Your task to perform on an android device: Search for bose soundsport free on newegg, select the first entry, add it to the cart, then select checkout. Image 0: 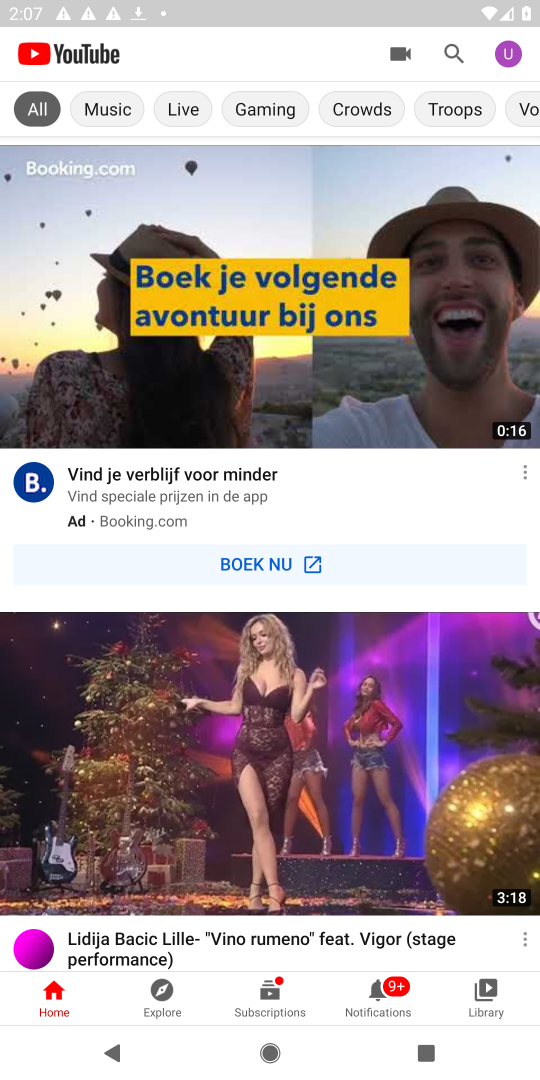
Step 0: press home button
Your task to perform on an android device: Search for bose soundsport free on newegg, select the first entry, add it to the cart, then select checkout. Image 1: 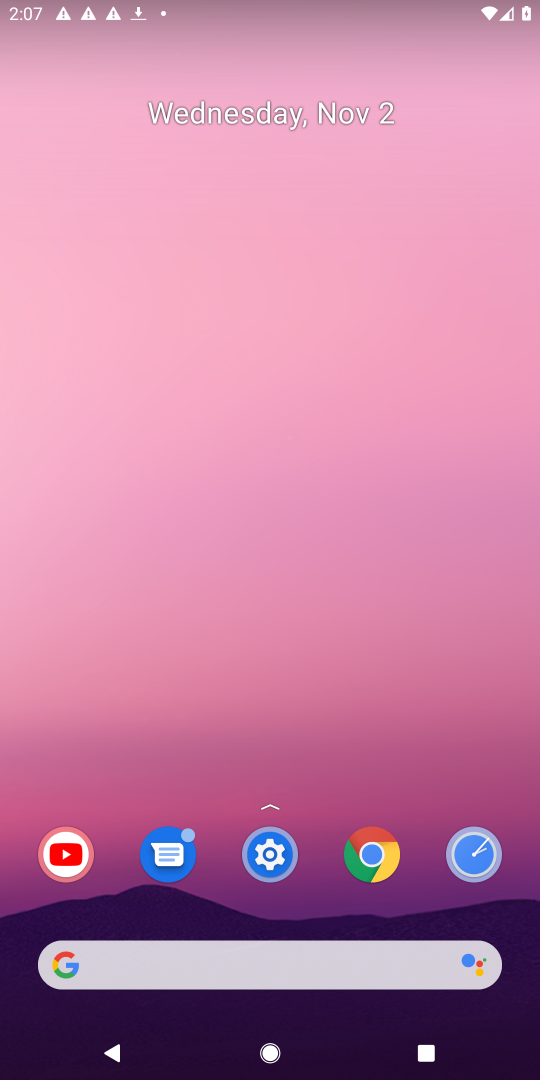
Step 1: click (315, 967)
Your task to perform on an android device: Search for bose soundsport free on newegg, select the first entry, add it to the cart, then select checkout. Image 2: 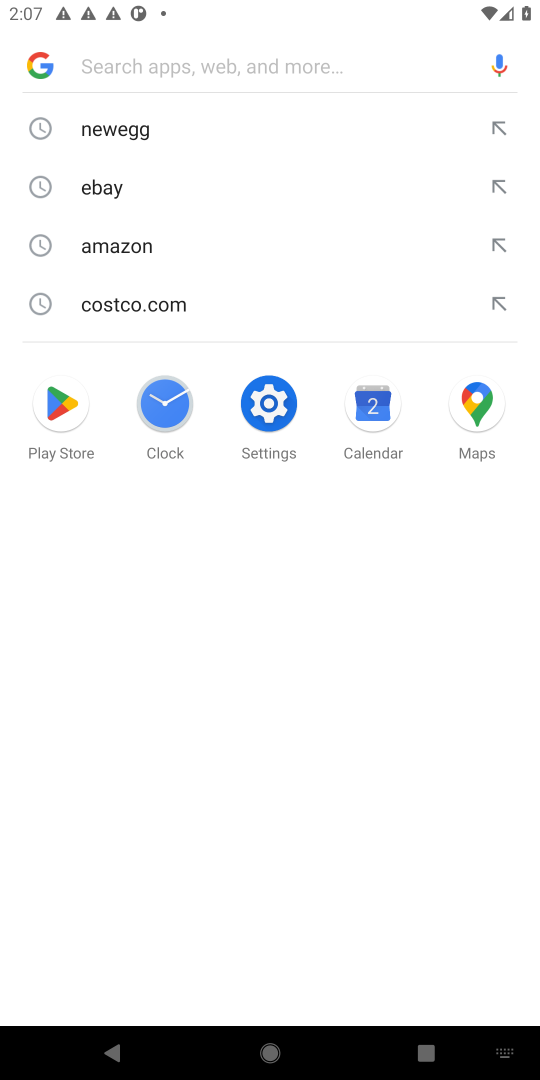
Step 2: type "newegg"
Your task to perform on an android device: Search for bose soundsport free on newegg, select the first entry, add it to the cart, then select checkout. Image 3: 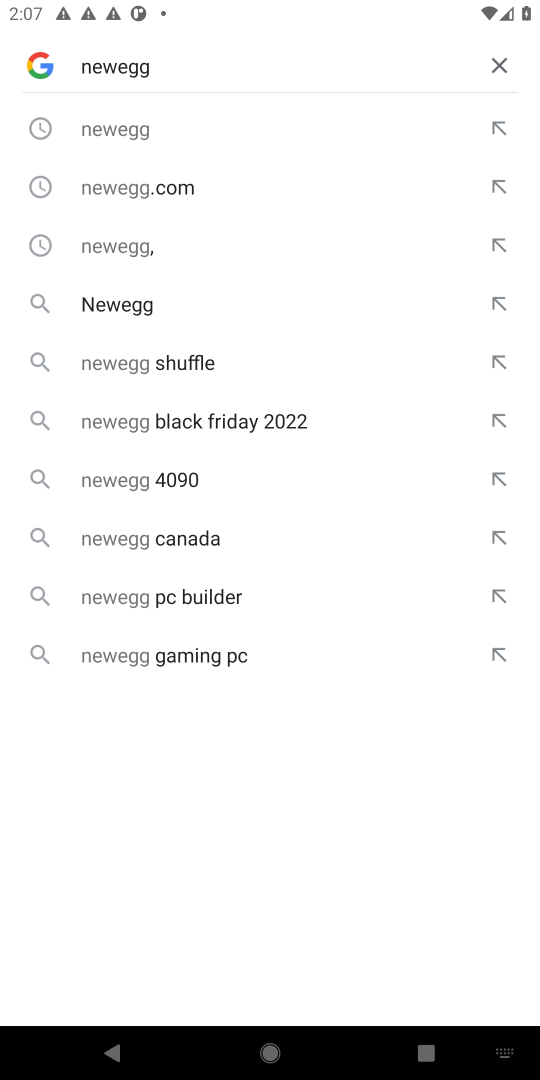
Step 3: press enter
Your task to perform on an android device: Search for bose soundsport free on newegg, select the first entry, add it to the cart, then select checkout. Image 4: 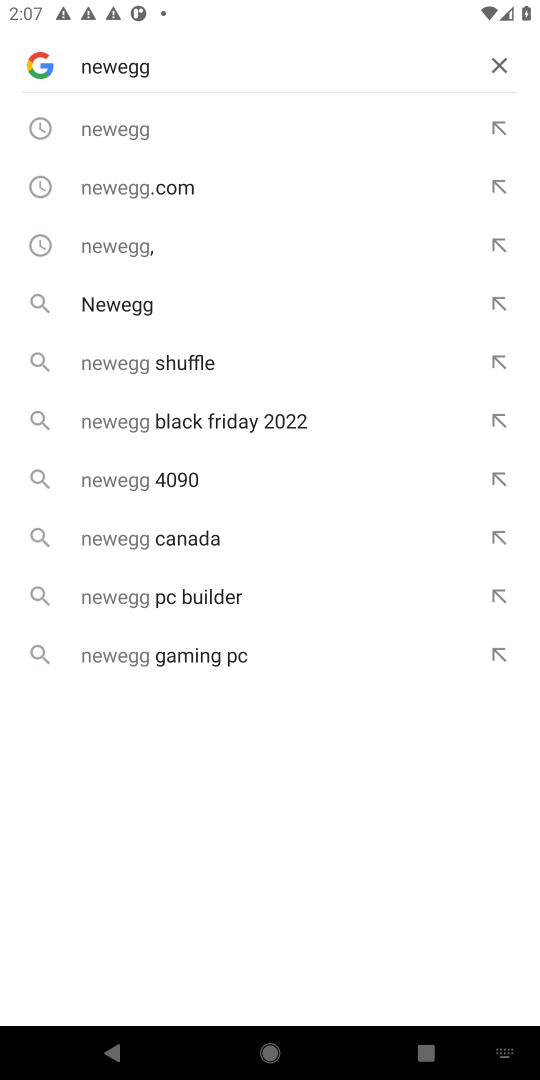
Step 4: type ""
Your task to perform on an android device: Search for bose soundsport free on newegg, select the first entry, add it to the cart, then select checkout. Image 5: 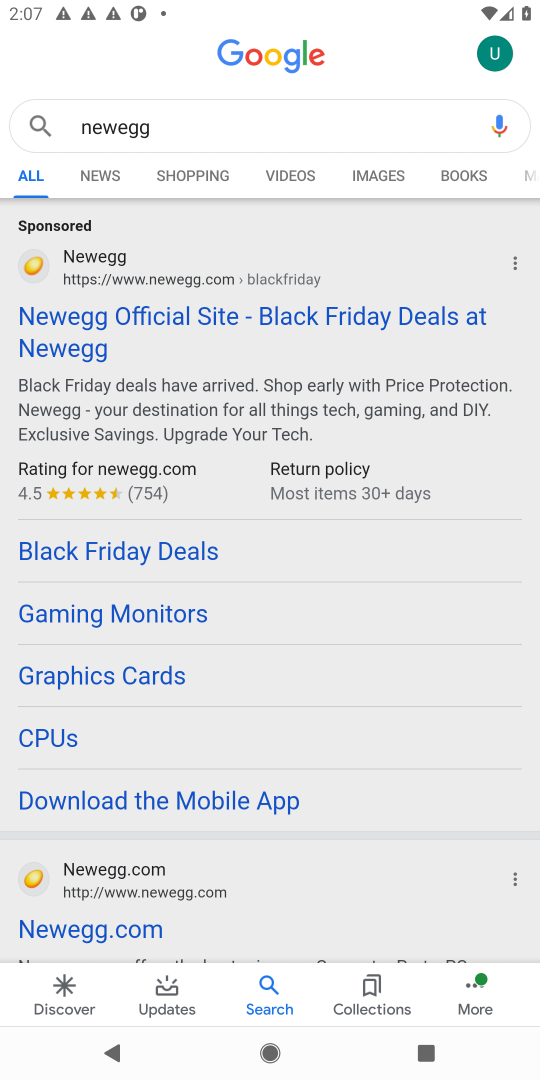
Step 5: click (117, 335)
Your task to perform on an android device: Search for bose soundsport free on newegg, select the first entry, add it to the cart, then select checkout. Image 6: 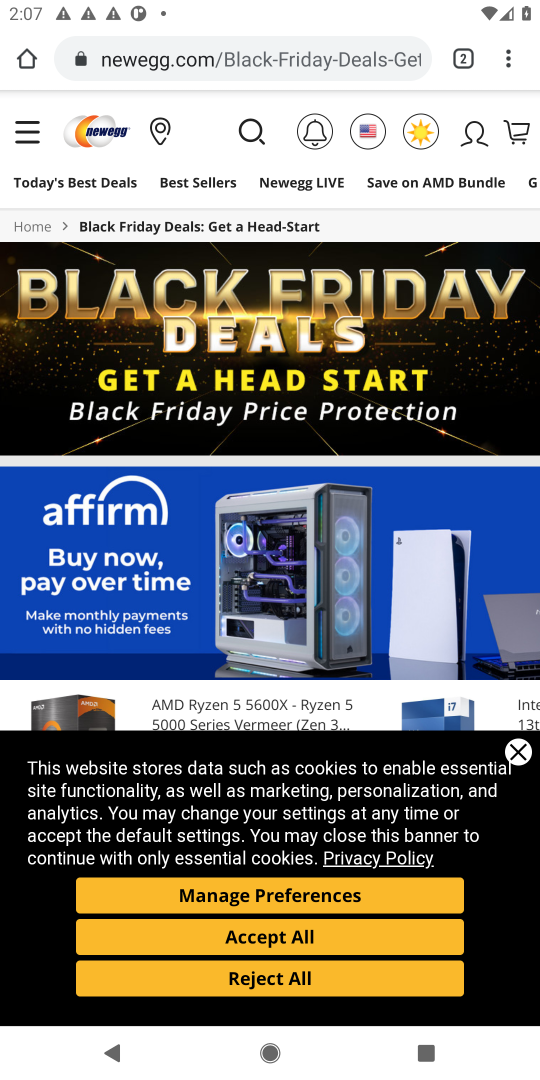
Step 6: click (266, 985)
Your task to perform on an android device: Search for bose soundsport free on newegg, select the first entry, add it to the cart, then select checkout. Image 7: 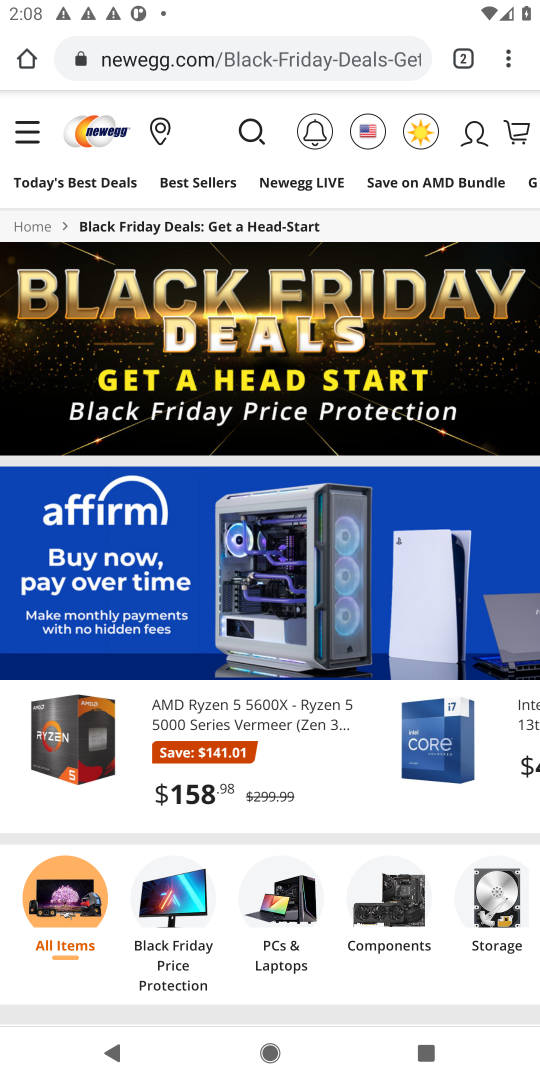
Step 7: drag from (193, 598) to (167, 349)
Your task to perform on an android device: Search for bose soundsport free on newegg, select the first entry, add it to the cart, then select checkout. Image 8: 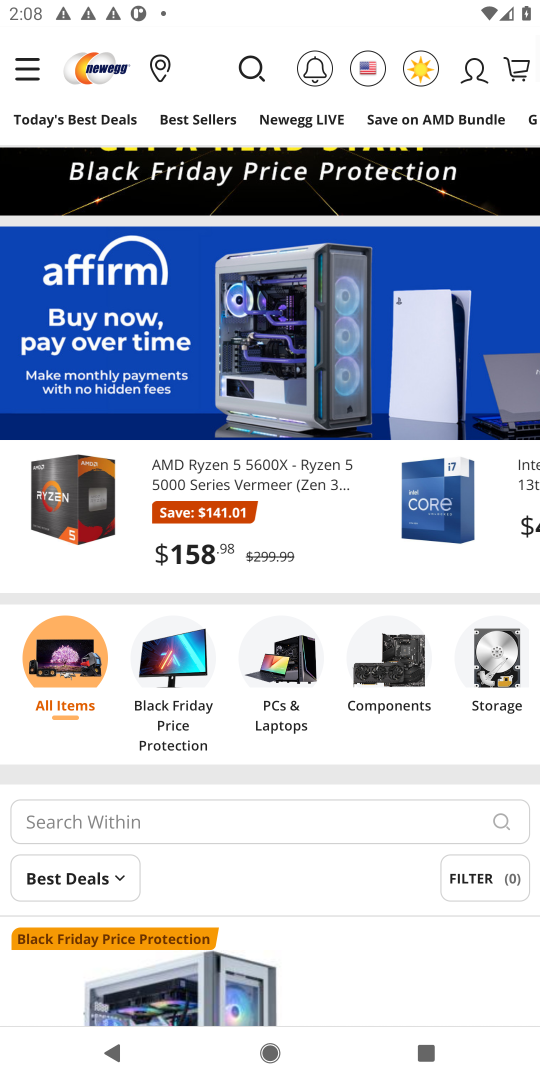
Step 8: click (173, 277)
Your task to perform on an android device: Search for bose soundsport free on newegg, select the first entry, add it to the cart, then select checkout. Image 9: 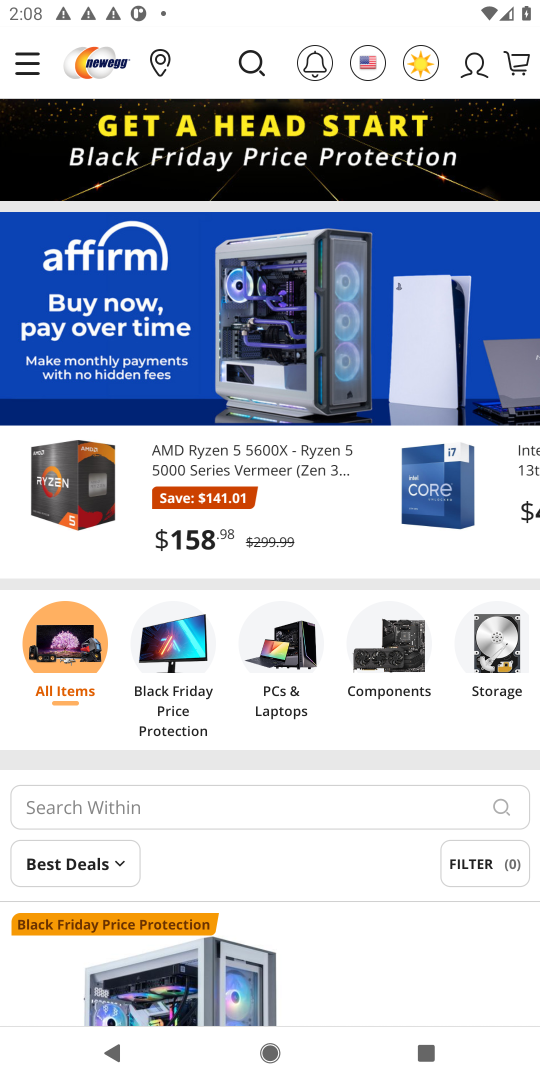
Step 9: click (315, 801)
Your task to perform on an android device: Search for bose soundsport free on newegg, select the first entry, add it to the cart, then select checkout. Image 10: 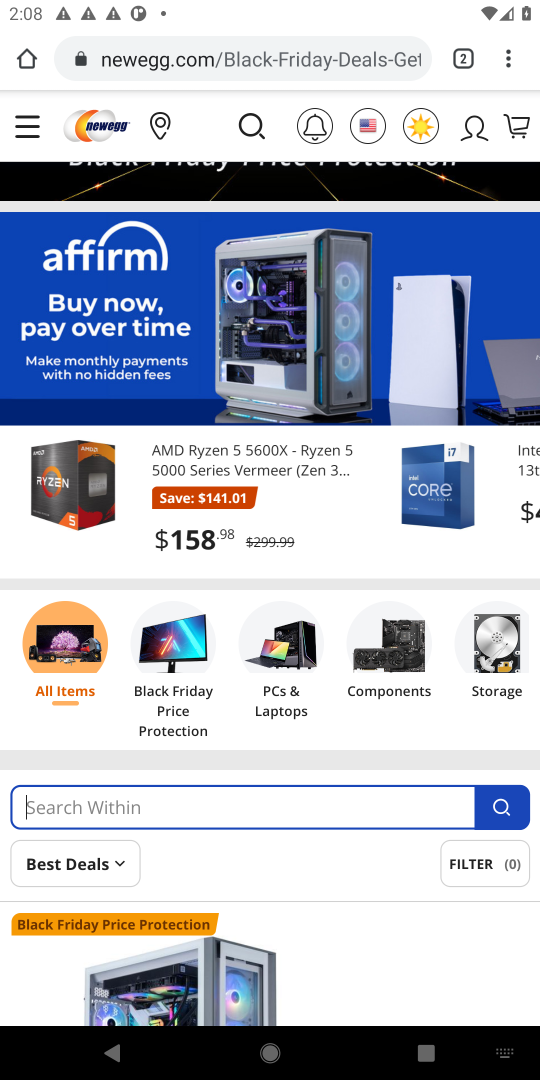
Step 10: click (315, 801)
Your task to perform on an android device: Search for bose soundsport free on newegg, select the first entry, add it to the cart, then select checkout. Image 11: 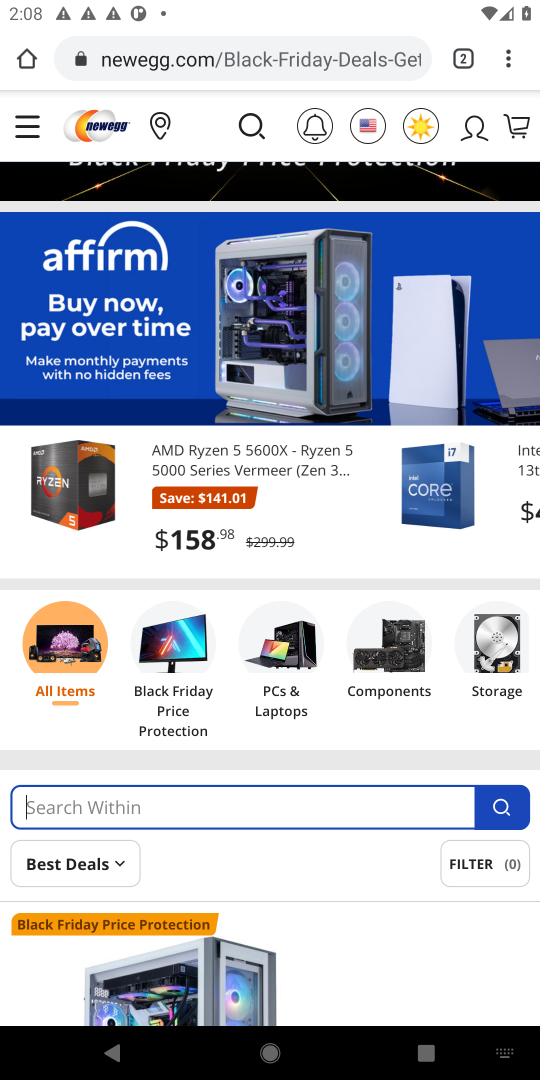
Step 11: click (240, 806)
Your task to perform on an android device: Search for bose soundsport free on newegg, select the first entry, add it to the cart, then select checkout. Image 12: 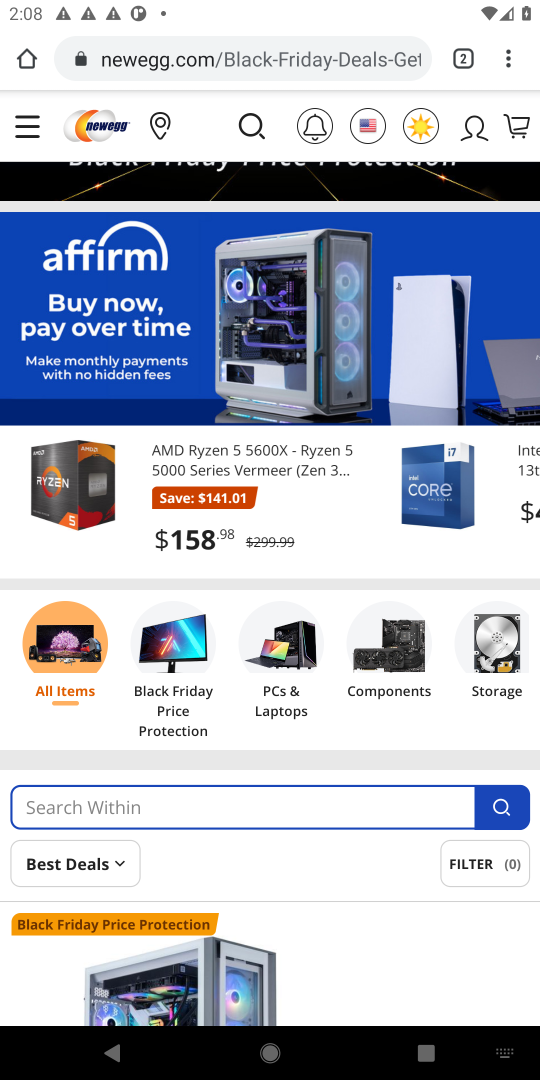
Step 12: type "bose soundsport"
Your task to perform on an android device: Search for bose soundsport free on newegg, select the first entry, add it to the cart, then select checkout. Image 13: 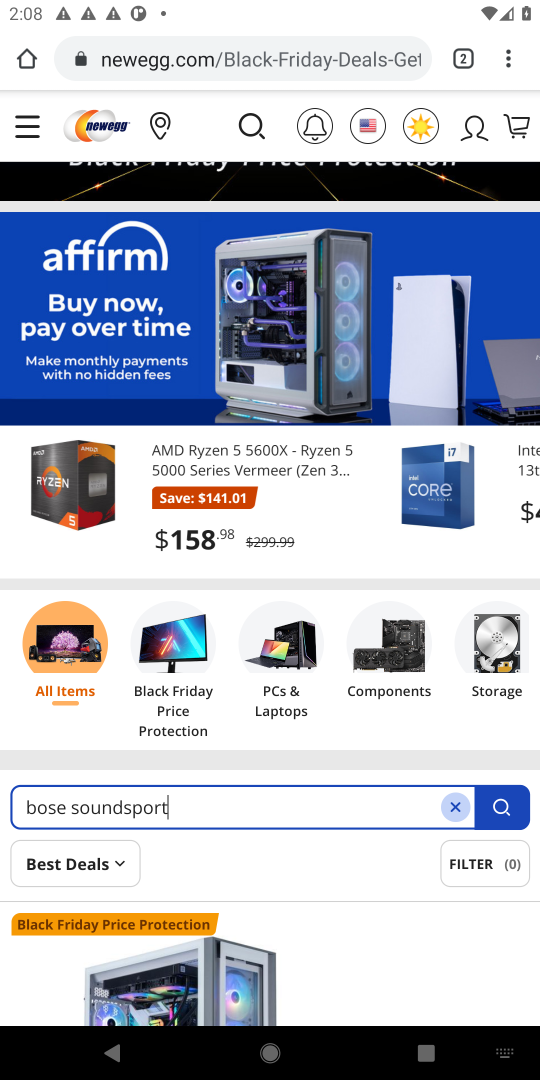
Step 13: type ""
Your task to perform on an android device: Search for bose soundsport free on newegg, select the first entry, add it to the cart, then select checkout. Image 14: 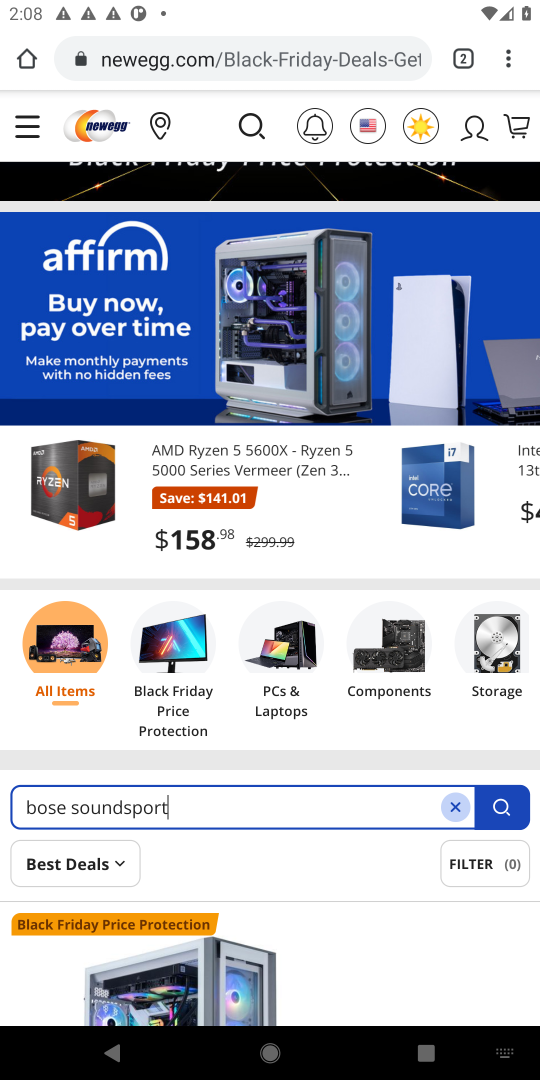
Step 14: press enter
Your task to perform on an android device: Search for bose soundsport free on newegg, select the first entry, add it to the cart, then select checkout. Image 15: 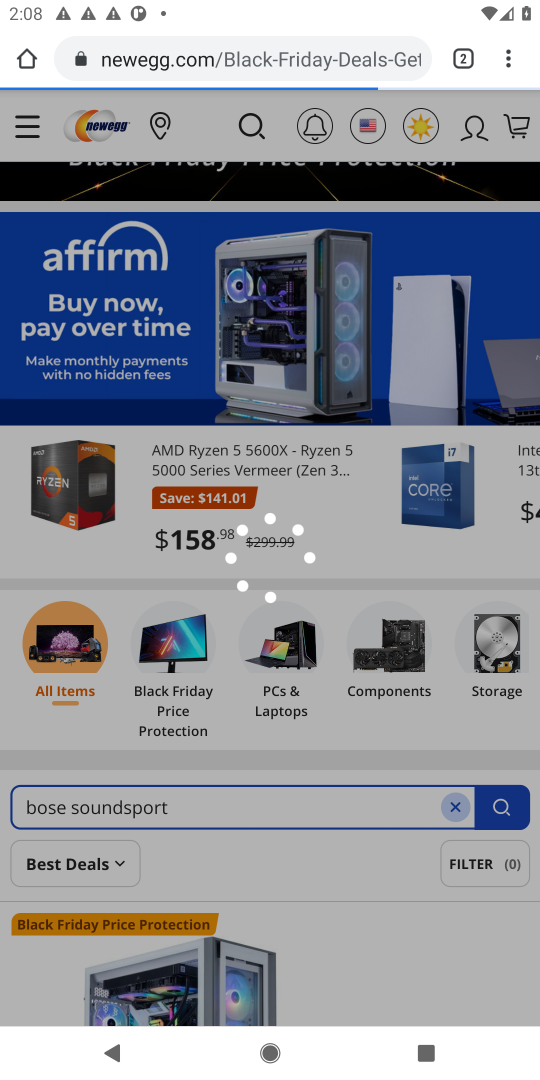
Step 15: press enter
Your task to perform on an android device: Search for bose soundsport free on newegg, select the first entry, add it to the cart, then select checkout. Image 16: 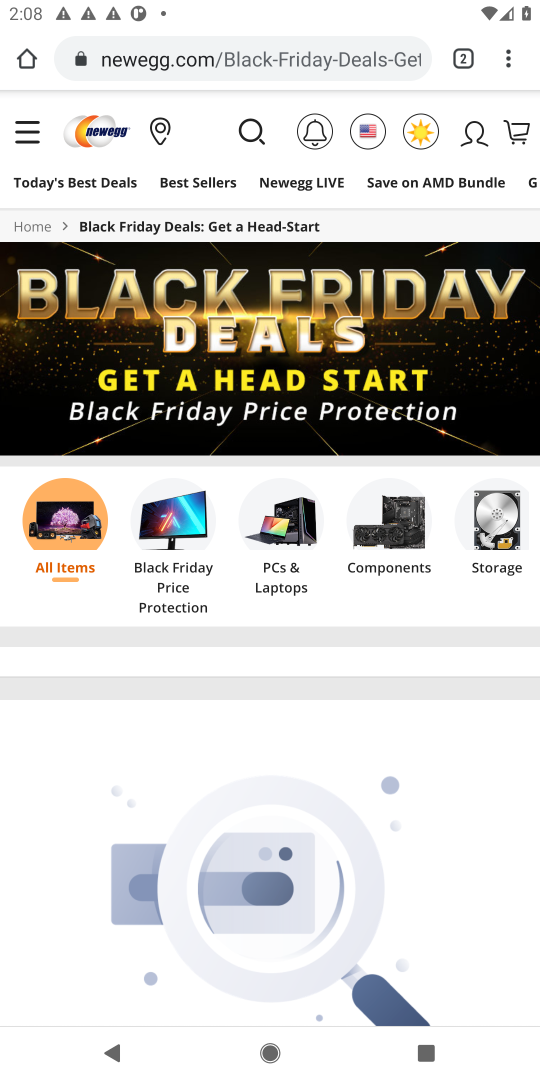
Step 16: press enter
Your task to perform on an android device: Search for bose soundsport free on newegg, select the first entry, add it to the cart, then select checkout. Image 17: 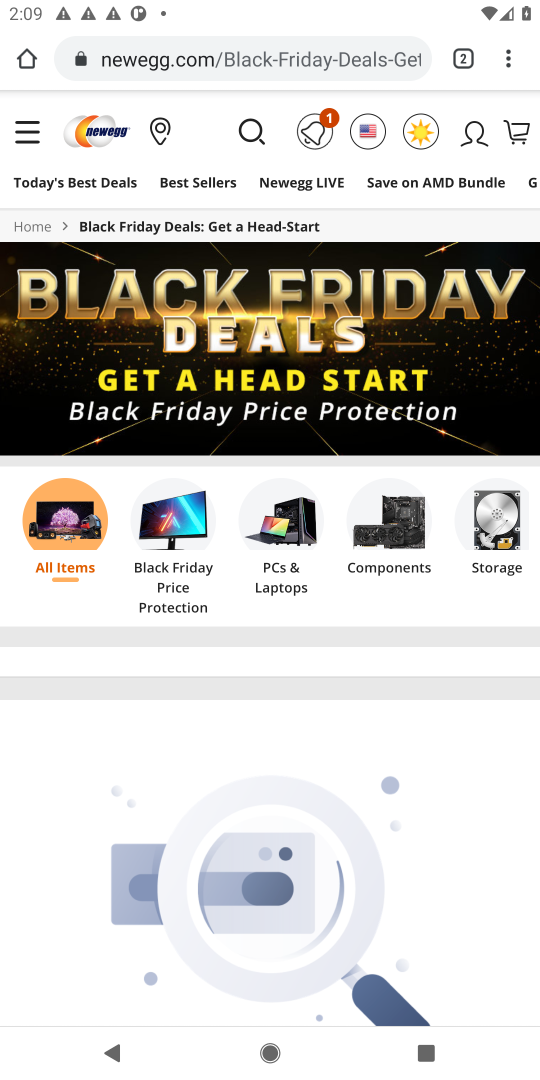
Step 17: drag from (435, 899) to (386, 793)
Your task to perform on an android device: Search for bose soundsport free on newegg, select the first entry, add it to the cart, then select checkout. Image 18: 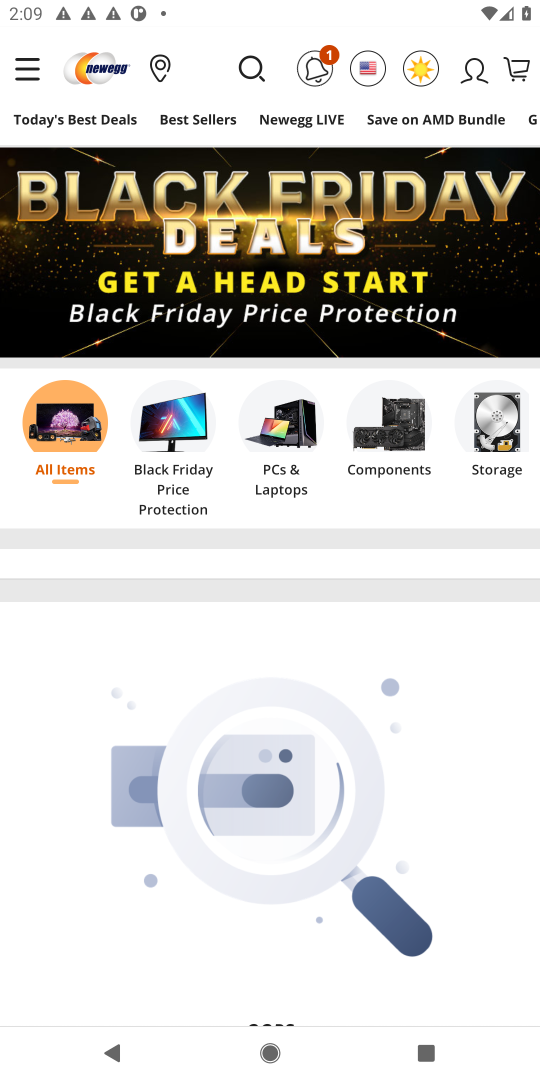
Step 18: click (266, 475)
Your task to perform on an android device: Search for bose soundsport free on newegg, select the first entry, add it to the cart, then select checkout. Image 19: 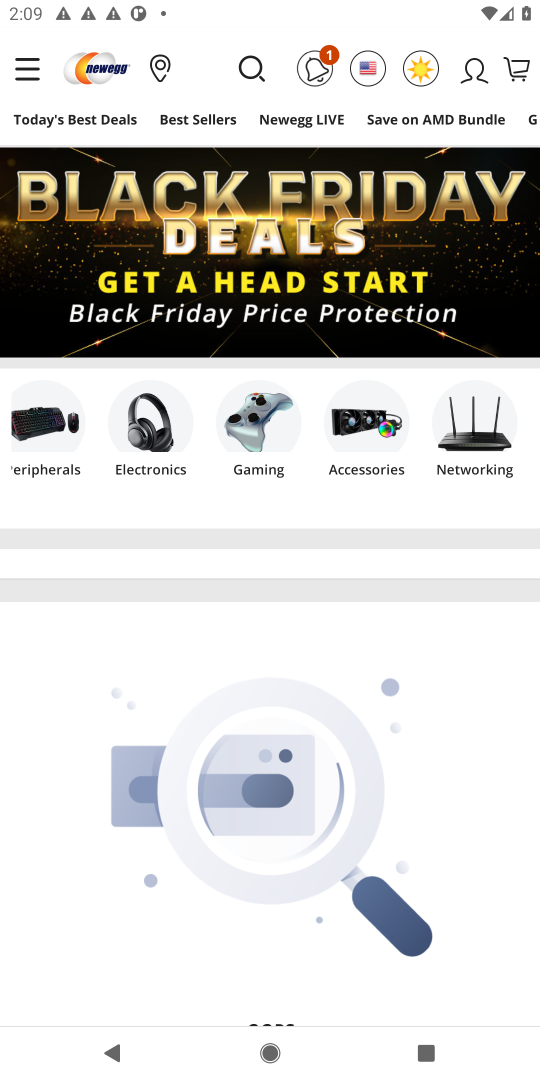
Step 19: drag from (292, 483) to (413, 313)
Your task to perform on an android device: Search for bose soundsport free on newegg, select the first entry, add it to the cart, then select checkout. Image 20: 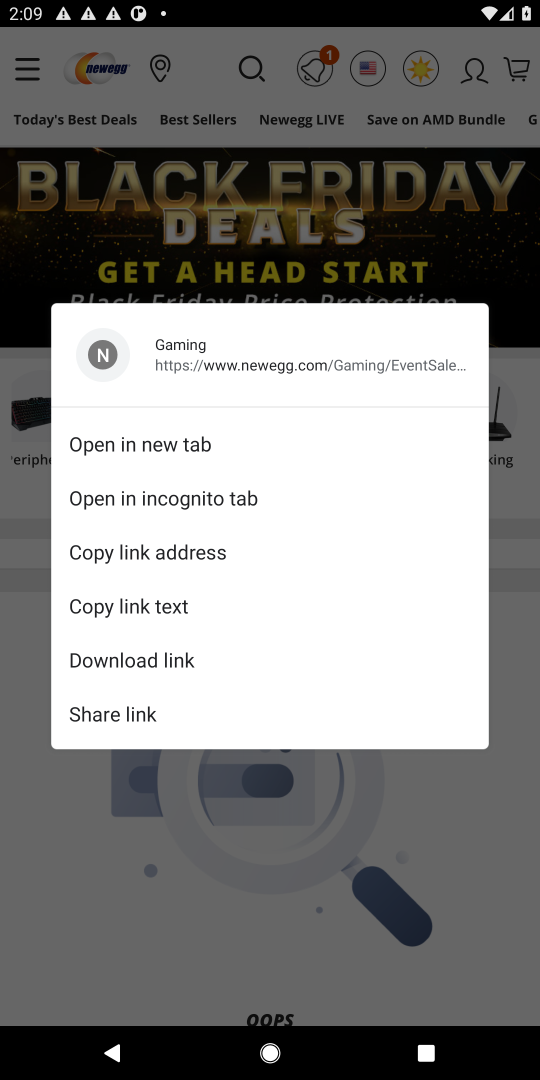
Step 20: drag from (252, 921) to (289, 794)
Your task to perform on an android device: Search for bose soundsport free on newegg, select the first entry, add it to the cart, then select checkout. Image 21: 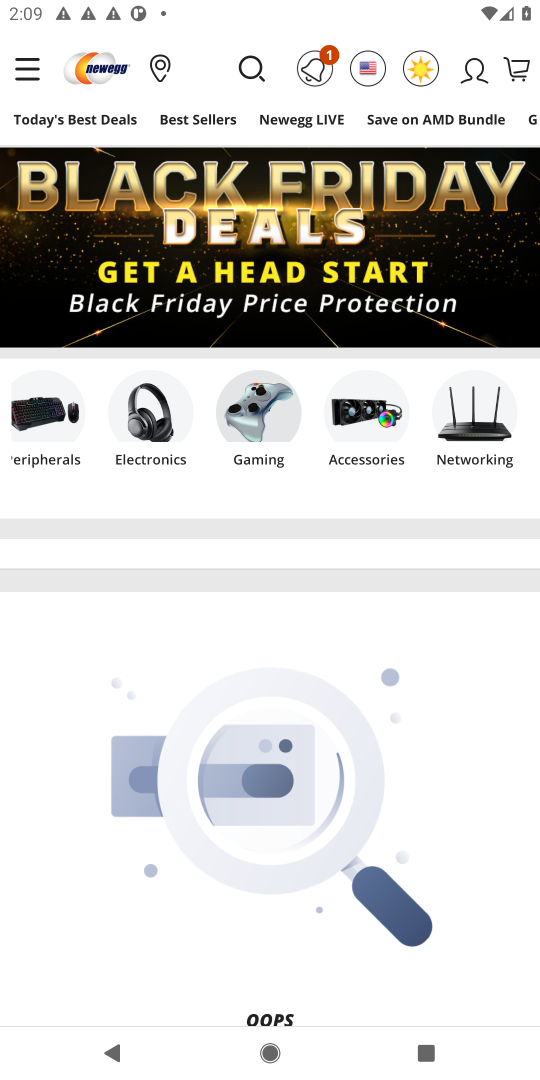
Step 21: click (289, 794)
Your task to perform on an android device: Search for bose soundsport free on newegg, select the first entry, add it to the cart, then select checkout. Image 22: 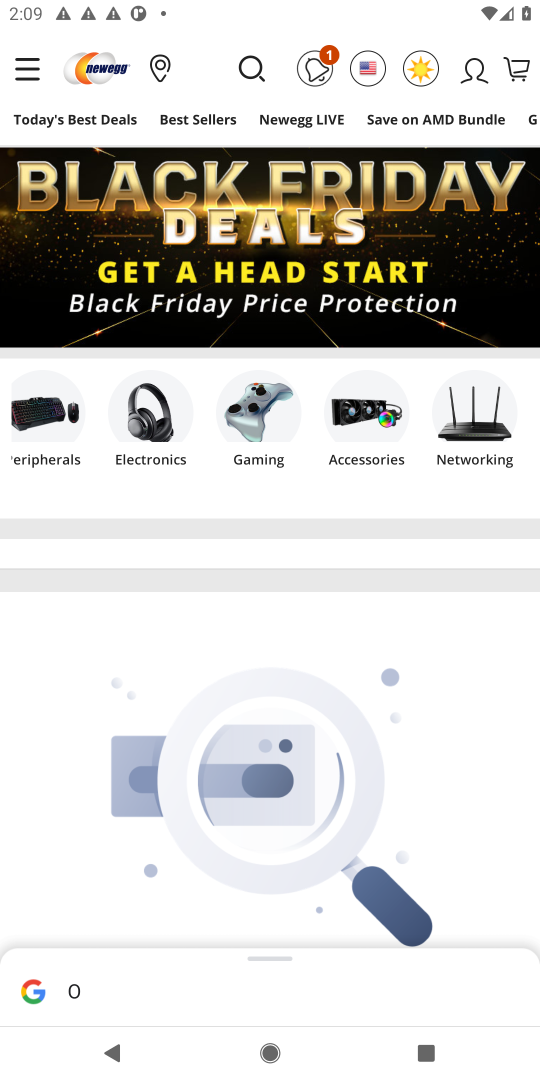
Step 22: task complete